Your task to perform on an android device: Go to Google maps Image 0: 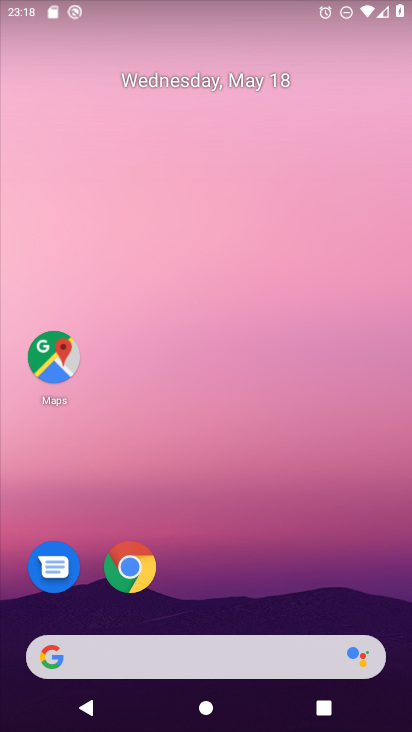
Step 0: drag from (280, 673) to (156, 155)
Your task to perform on an android device: Go to Google maps Image 1: 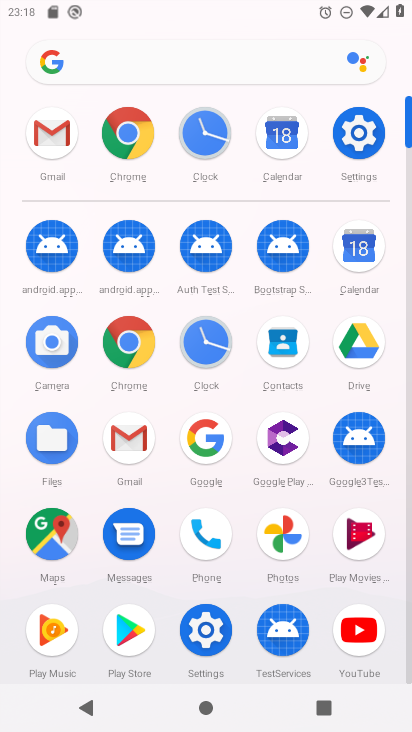
Step 1: click (60, 539)
Your task to perform on an android device: Go to Google maps Image 2: 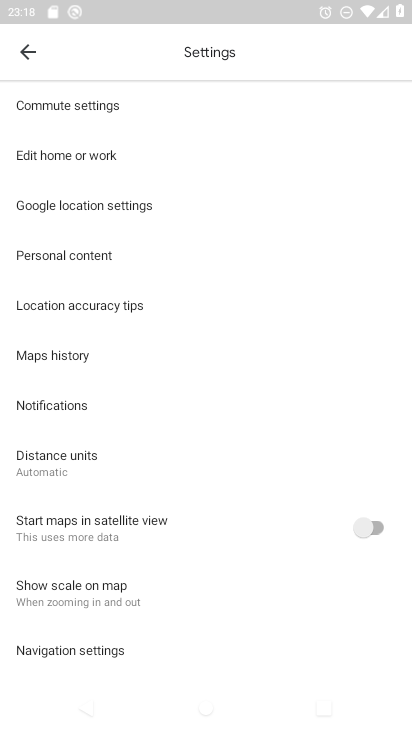
Step 2: click (21, 69)
Your task to perform on an android device: Go to Google maps Image 3: 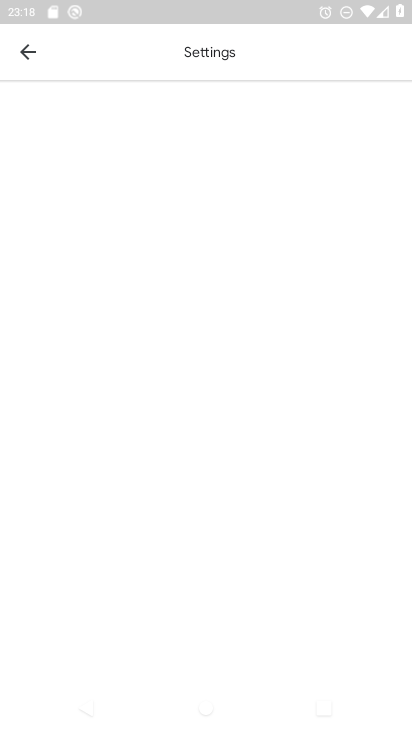
Step 3: click (20, 48)
Your task to perform on an android device: Go to Google maps Image 4: 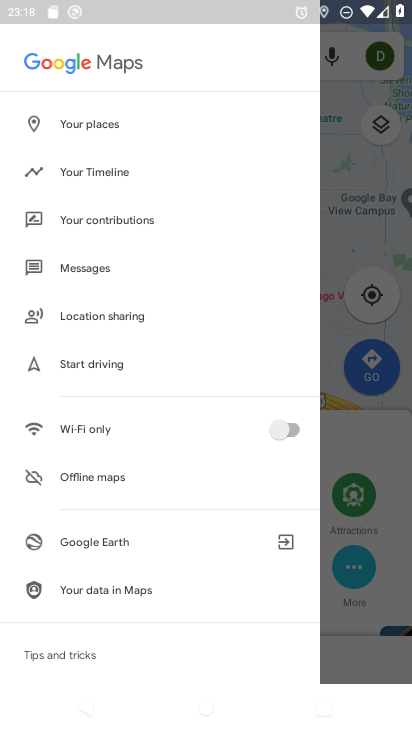
Step 4: press back button
Your task to perform on an android device: Go to Google maps Image 5: 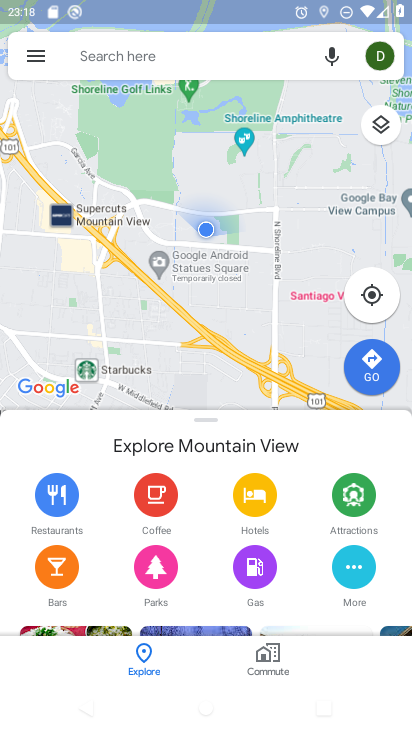
Step 5: click (375, 281)
Your task to perform on an android device: Go to Google maps Image 6: 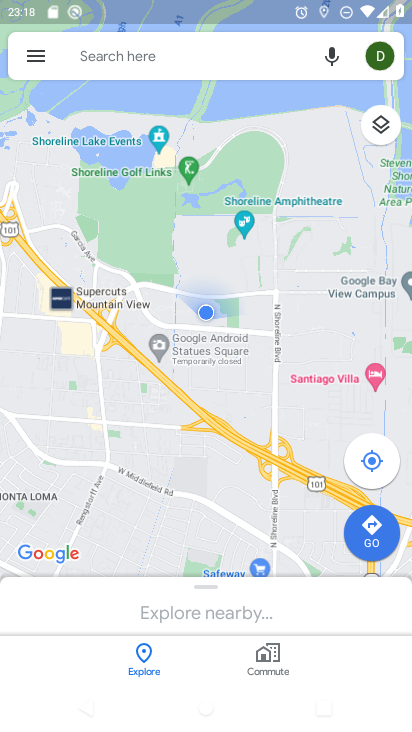
Step 6: task complete